Your task to perform on an android device: change the clock display to analog Image 0: 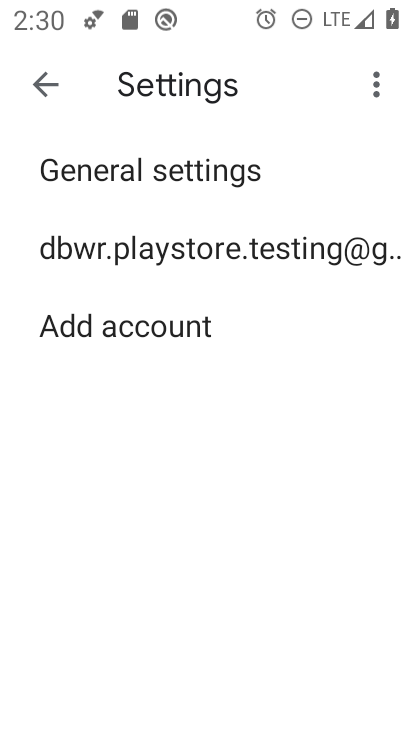
Step 0: press home button
Your task to perform on an android device: change the clock display to analog Image 1: 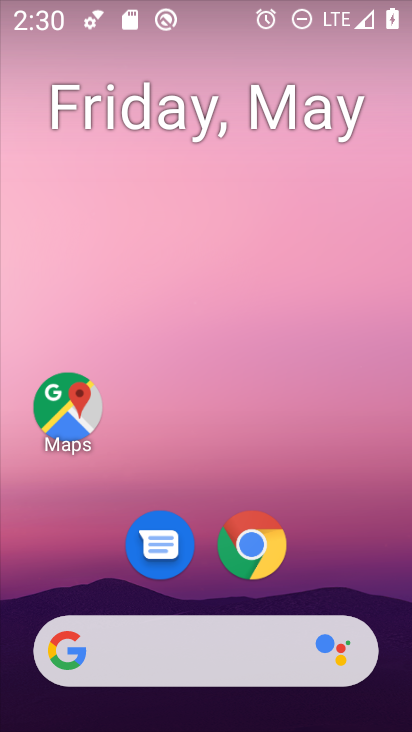
Step 1: drag from (303, 551) to (299, 240)
Your task to perform on an android device: change the clock display to analog Image 2: 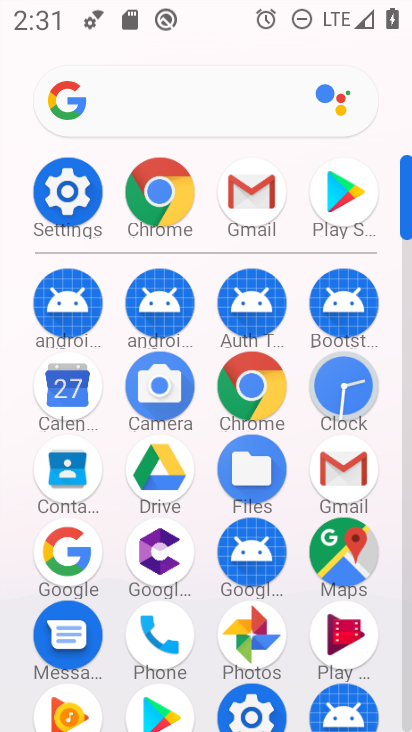
Step 2: click (349, 377)
Your task to perform on an android device: change the clock display to analog Image 3: 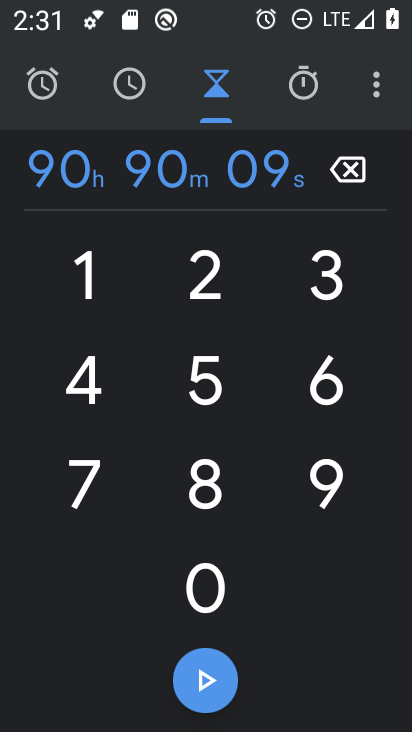
Step 3: click (370, 82)
Your task to perform on an android device: change the clock display to analog Image 4: 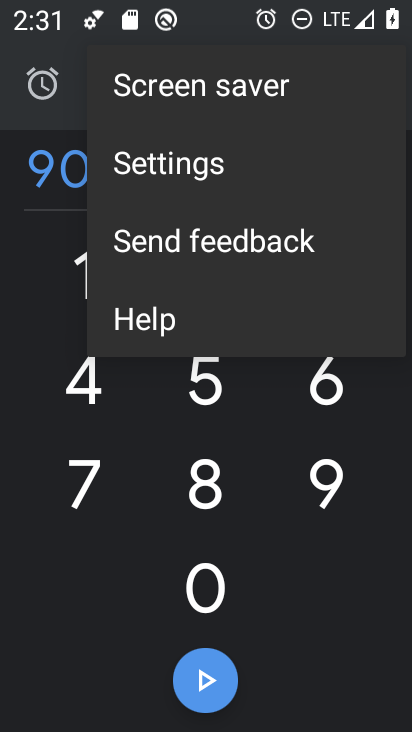
Step 4: click (238, 166)
Your task to perform on an android device: change the clock display to analog Image 5: 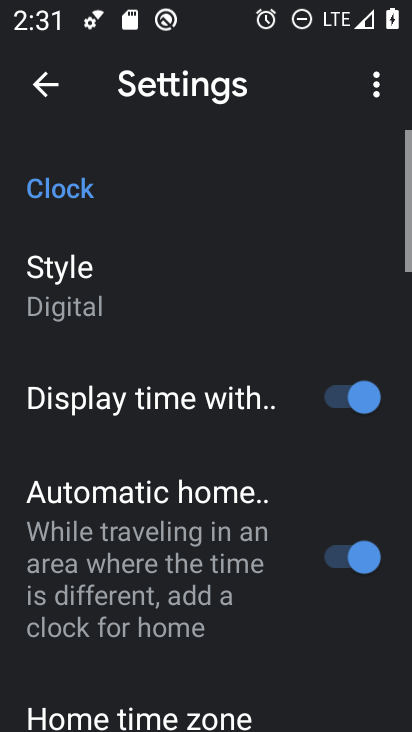
Step 5: click (103, 268)
Your task to perform on an android device: change the clock display to analog Image 6: 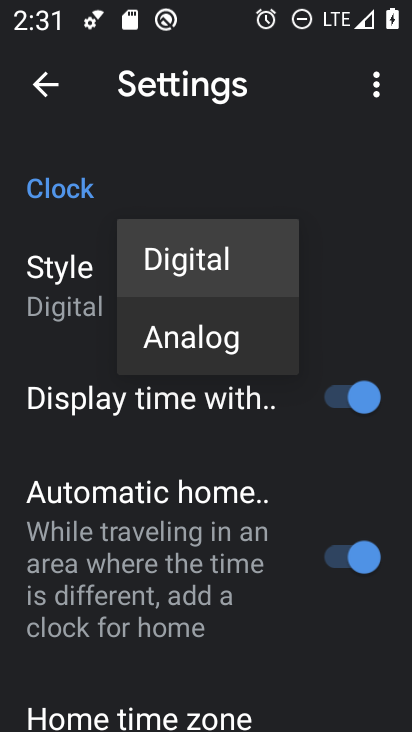
Step 6: click (211, 345)
Your task to perform on an android device: change the clock display to analog Image 7: 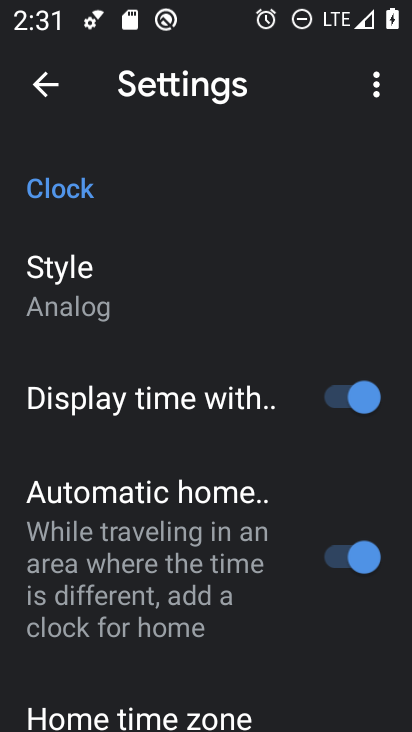
Step 7: task complete